Your task to perform on an android device: Open Google Chrome Image 0: 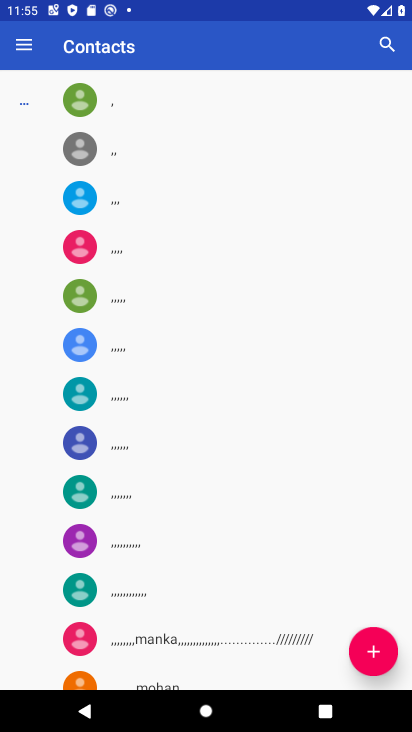
Step 0: press home button
Your task to perform on an android device: Open Google Chrome Image 1: 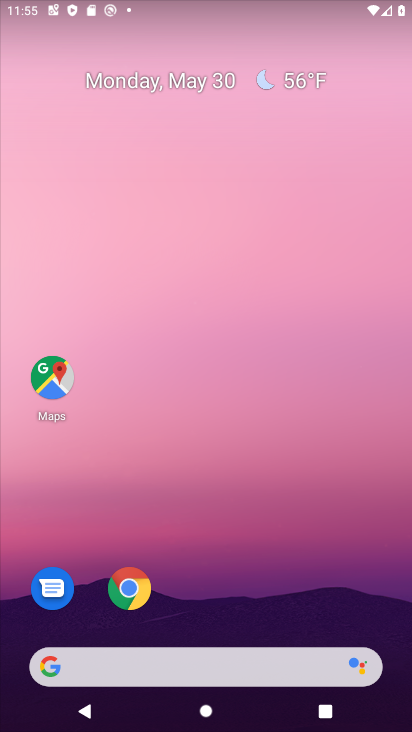
Step 1: drag from (203, 614) to (326, 95)
Your task to perform on an android device: Open Google Chrome Image 2: 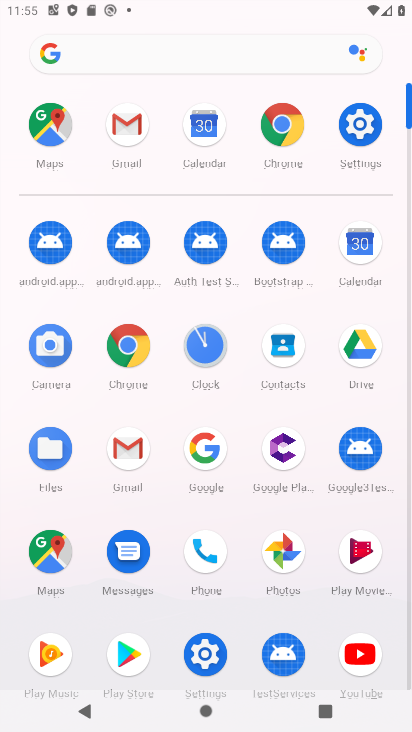
Step 2: click (125, 357)
Your task to perform on an android device: Open Google Chrome Image 3: 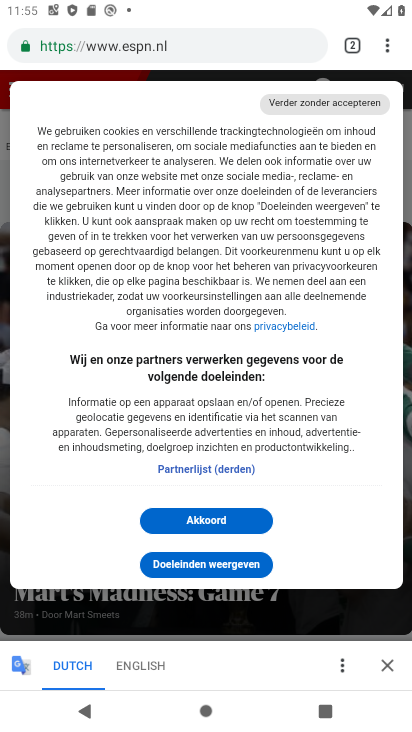
Step 3: task complete